Your task to perform on an android device: toggle improve location accuracy Image 0: 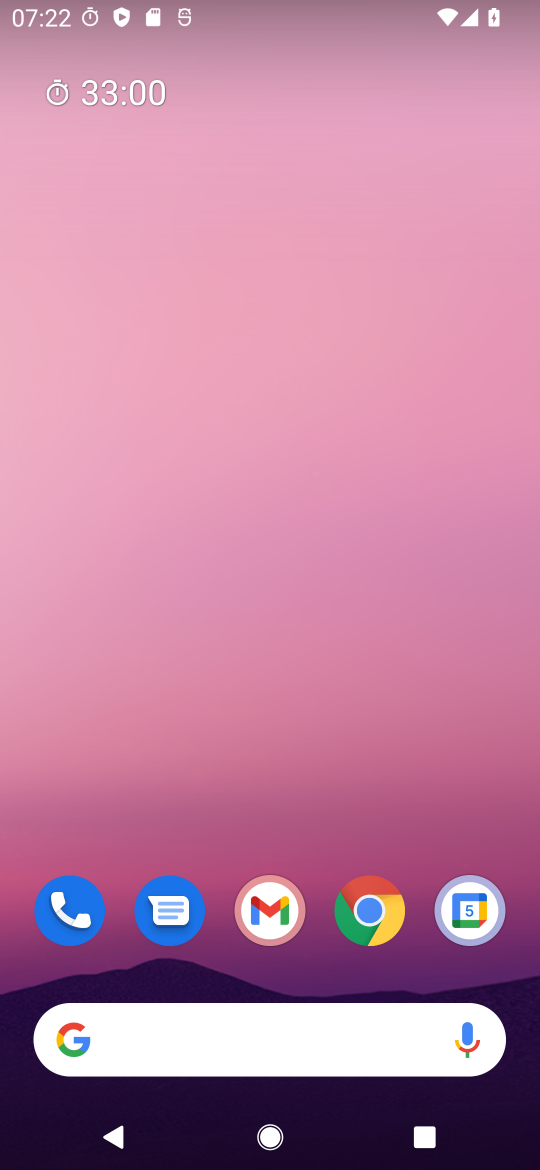
Step 0: drag from (335, 1035) to (348, 22)
Your task to perform on an android device: toggle improve location accuracy Image 1: 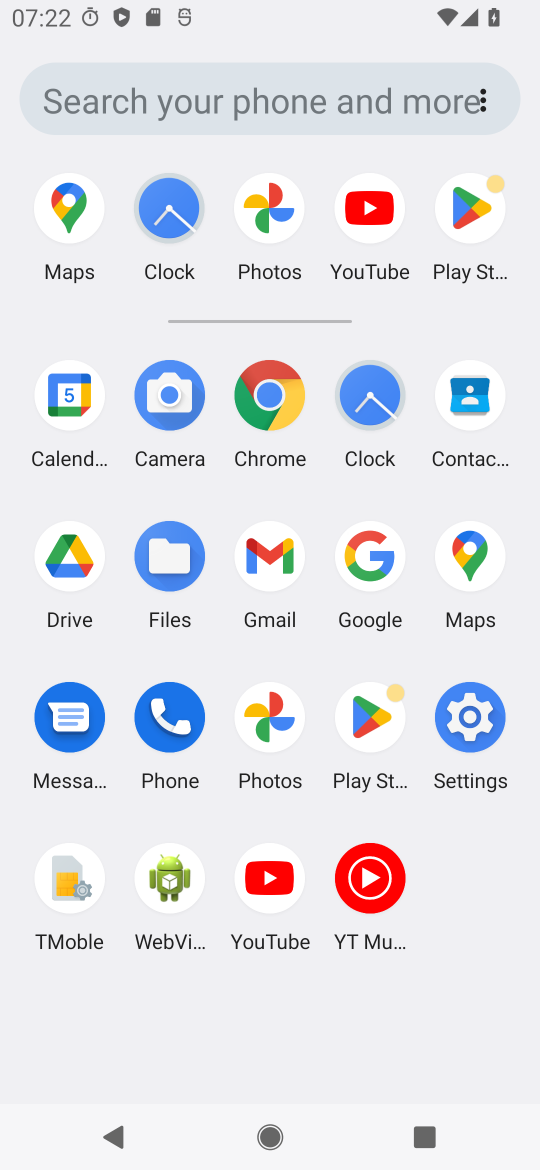
Step 1: click (453, 709)
Your task to perform on an android device: toggle improve location accuracy Image 2: 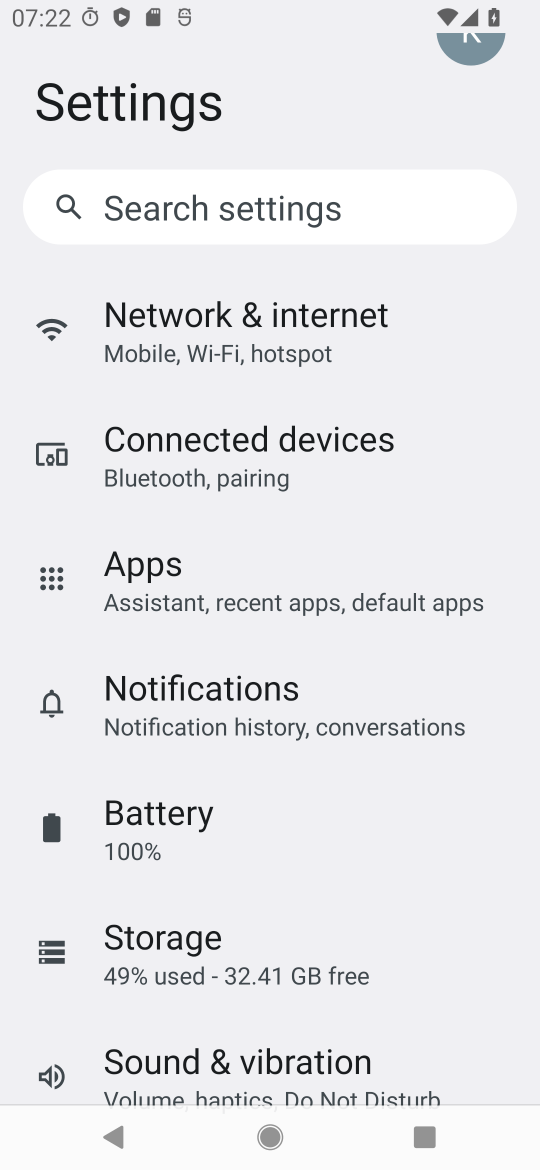
Step 2: drag from (346, 868) to (297, 313)
Your task to perform on an android device: toggle improve location accuracy Image 3: 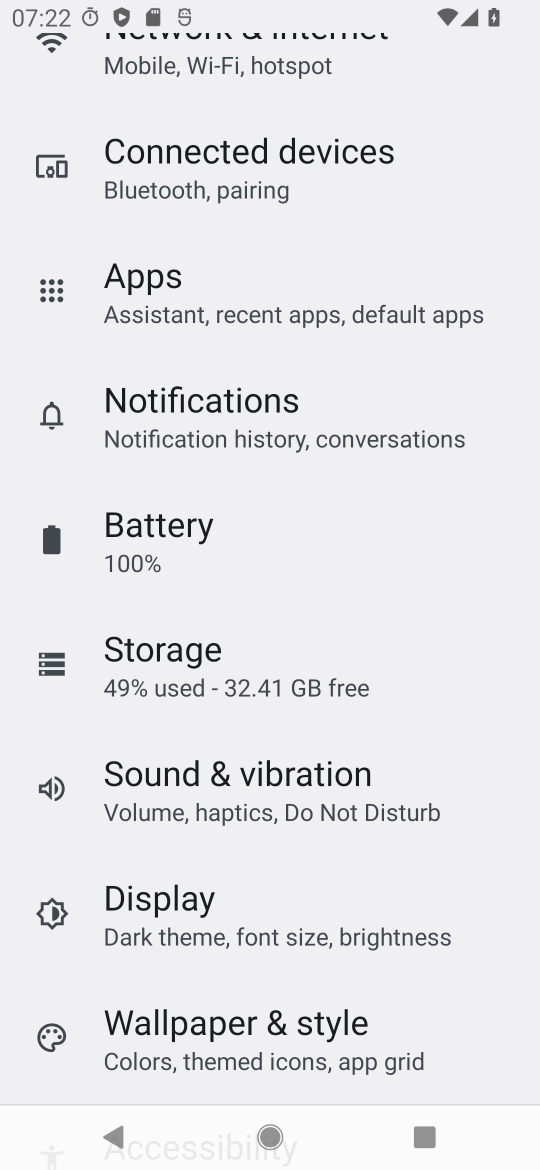
Step 3: drag from (409, 960) to (361, 334)
Your task to perform on an android device: toggle improve location accuracy Image 4: 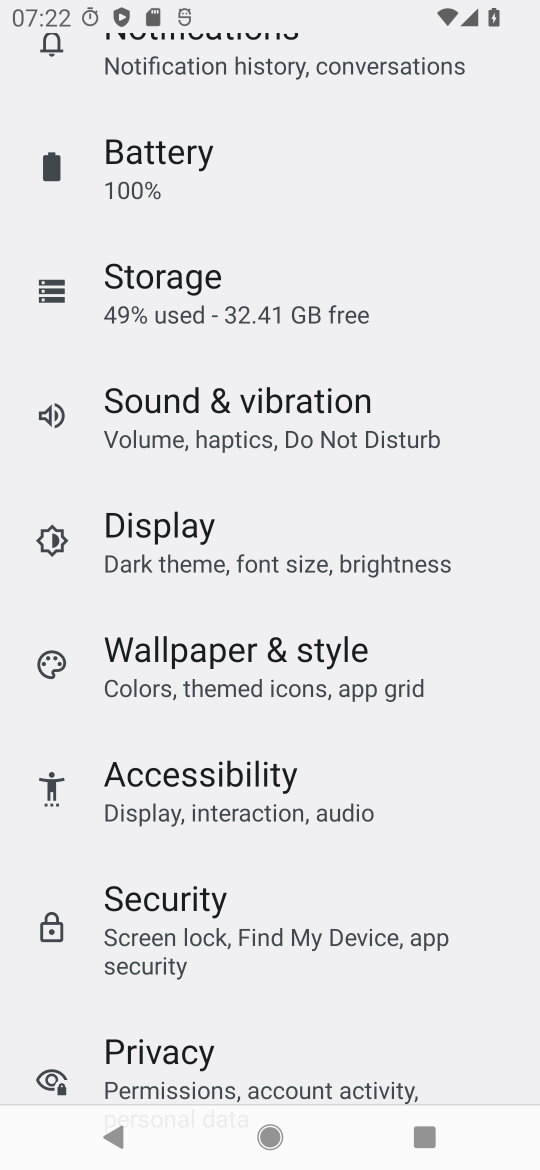
Step 4: drag from (361, 152) to (379, 1150)
Your task to perform on an android device: toggle improve location accuracy Image 5: 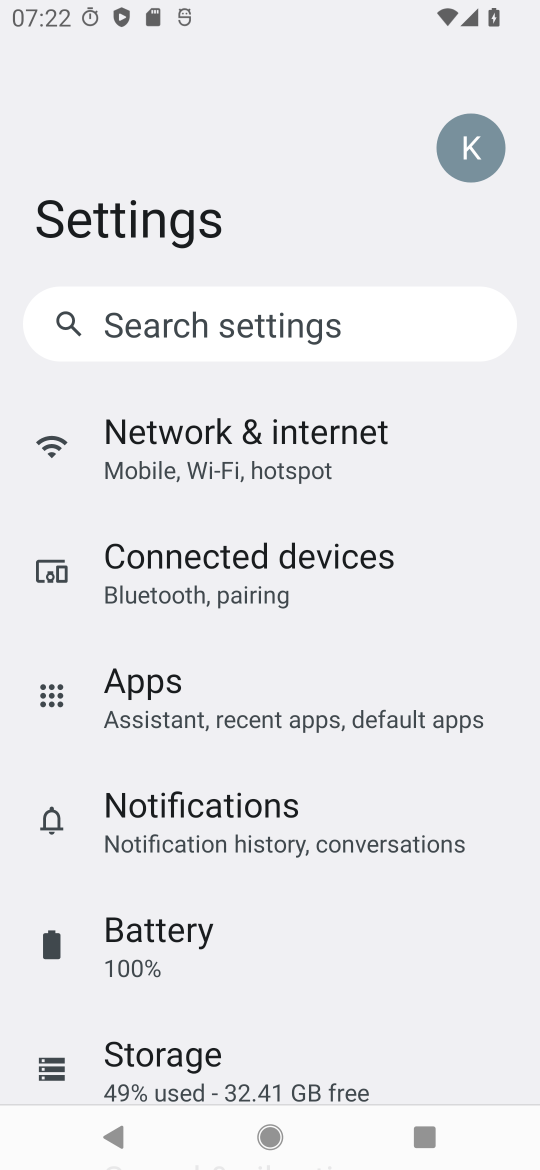
Step 5: drag from (370, 1014) to (365, 293)
Your task to perform on an android device: toggle improve location accuracy Image 6: 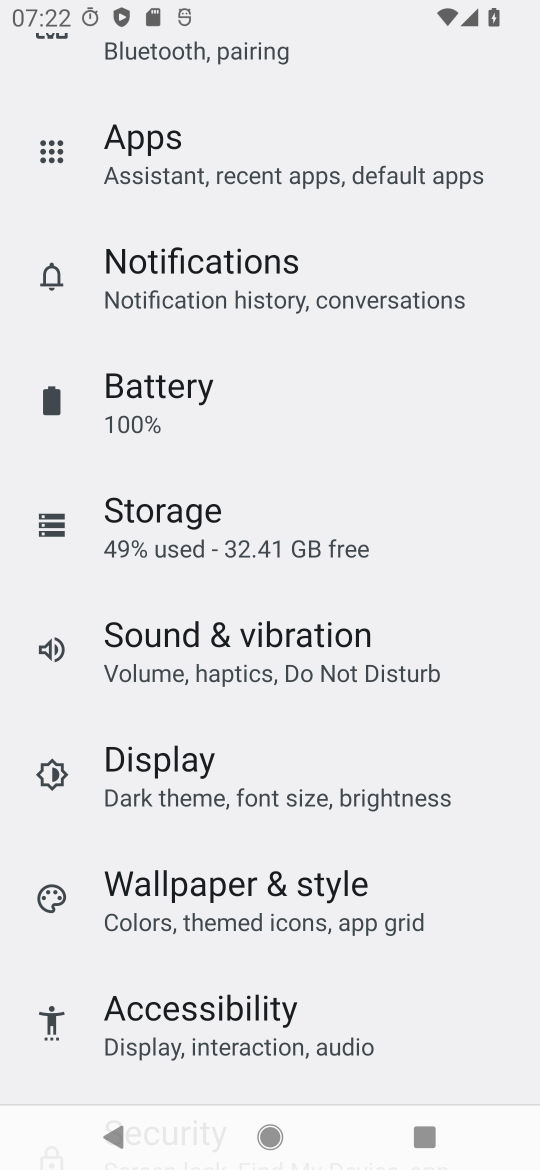
Step 6: drag from (458, 957) to (468, 493)
Your task to perform on an android device: toggle improve location accuracy Image 7: 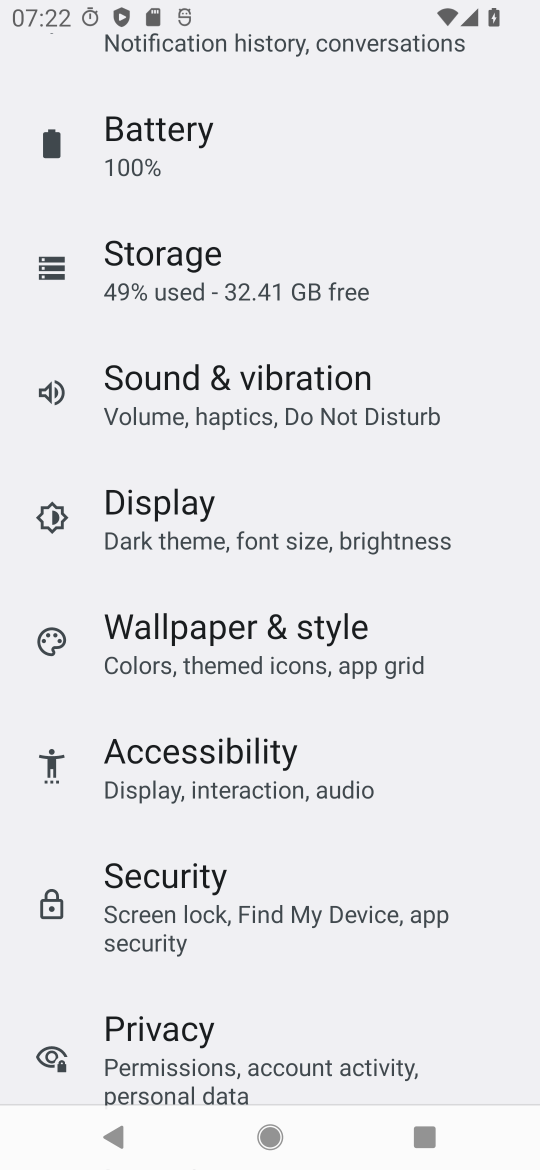
Step 7: drag from (347, 995) to (365, 256)
Your task to perform on an android device: toggle improve location accuracy Image 8: 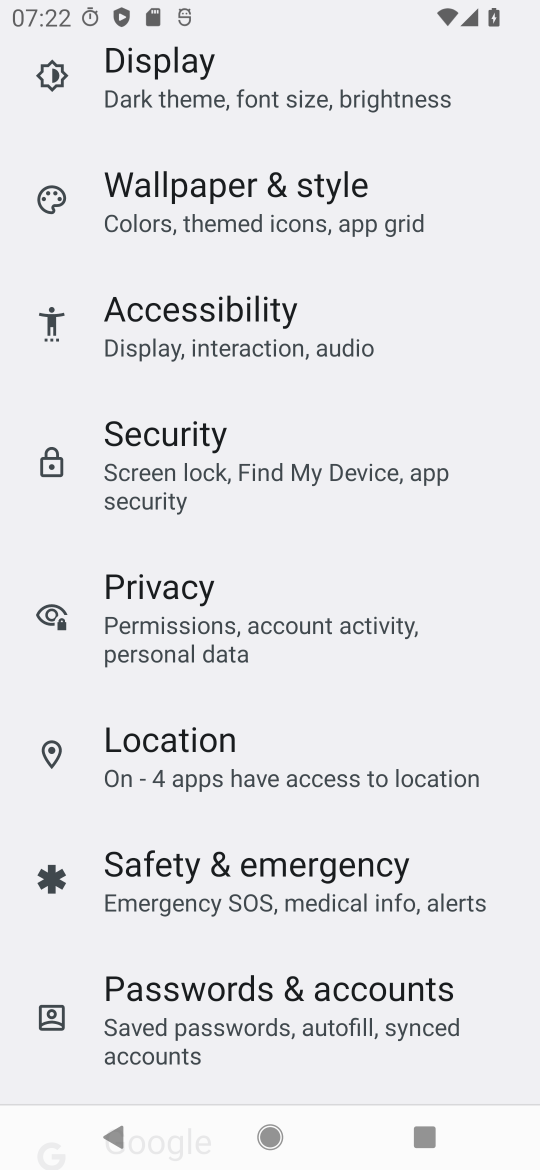
Step 8: click (216, 717)
Your task to perform on an android device: toggle improve location accuracy Image 9: 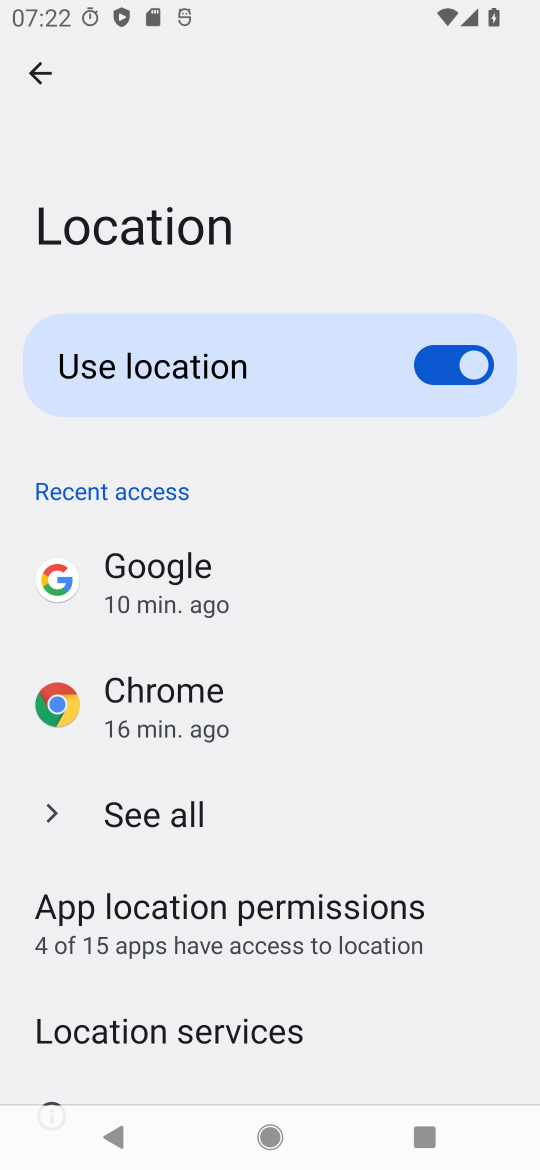
Step 9: click (221, 1017)
Your task to perform on an android device: toggle improve location accuracy Image 10: 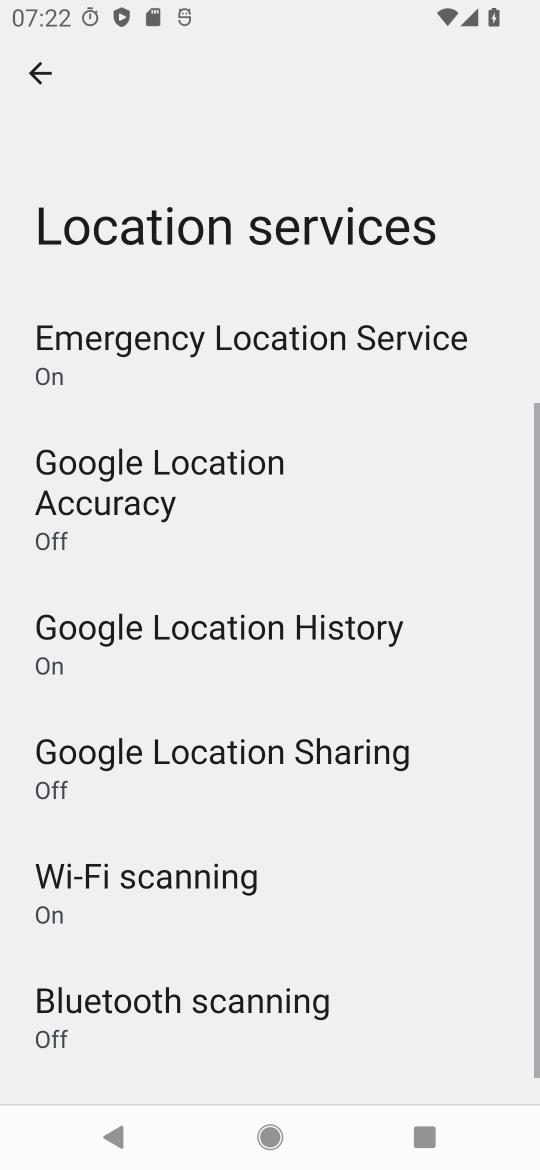
Step 10: click (170, 489)
Your task to perform on an android device: toggle improve location accuracy Image 11: 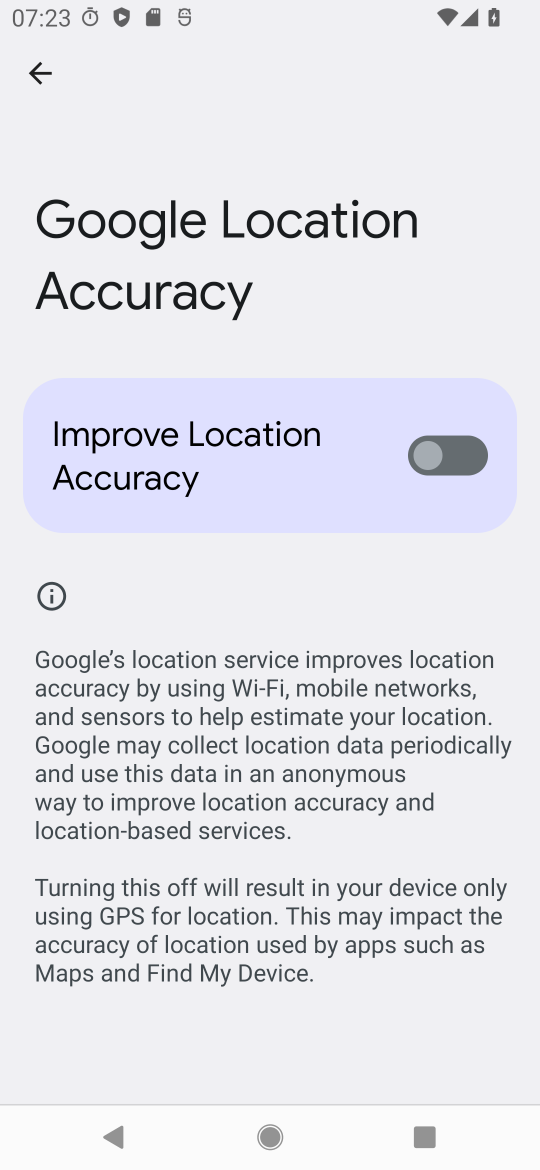
Step 11: click (463, 445)
Your task to perform on an android device: toggle improve location accuracy Image 12: 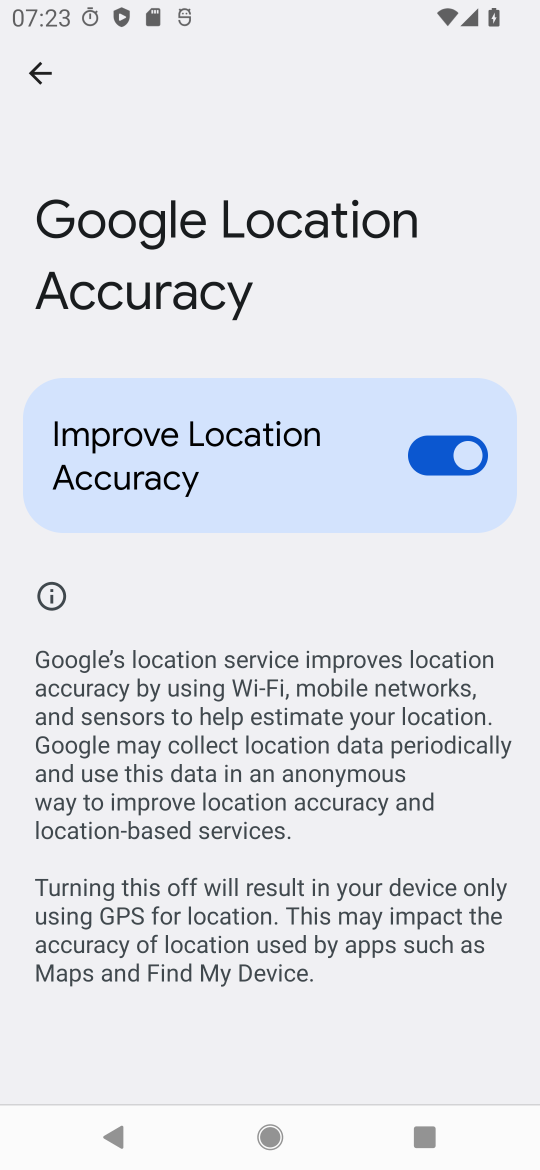
Step 12: task complete